Your task to perform on an android device: turn on bluetooth scan Image 0: 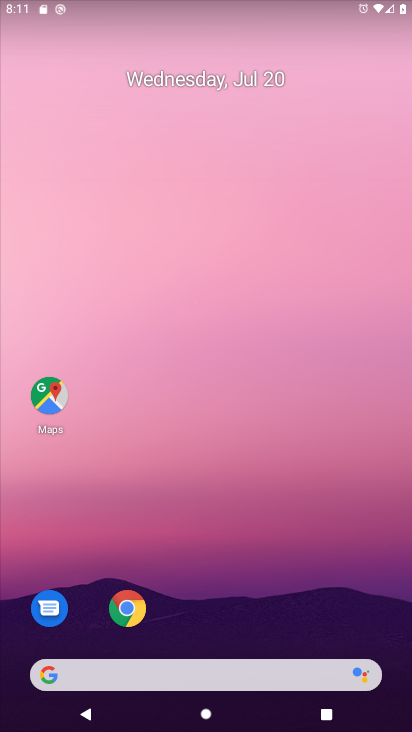
Step 0: drag from (166, 678) to (185, 243)
Your task to perform on an android device: turn on bluetooth scan Image 1: 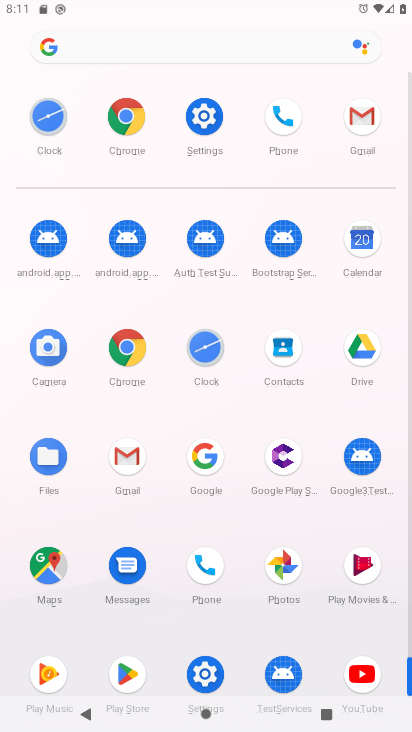
Step 1: click (208, 109)
Your task to perform on an android device: turn on bluetooth scan Image 2: 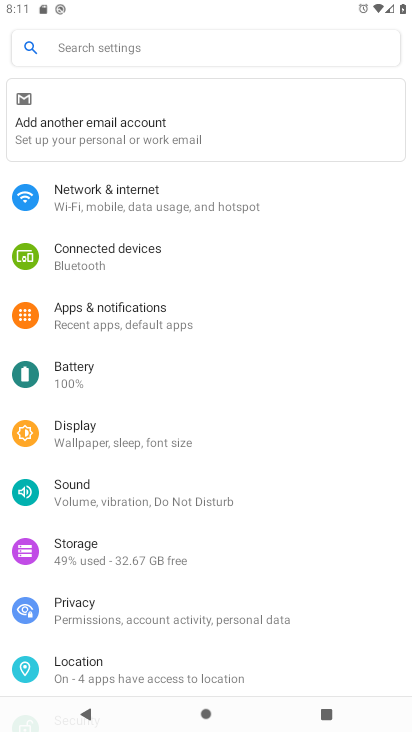
Step 2: click (185, 34)
Your task to perform on an android device: turn on bluetooth scan Image 3: 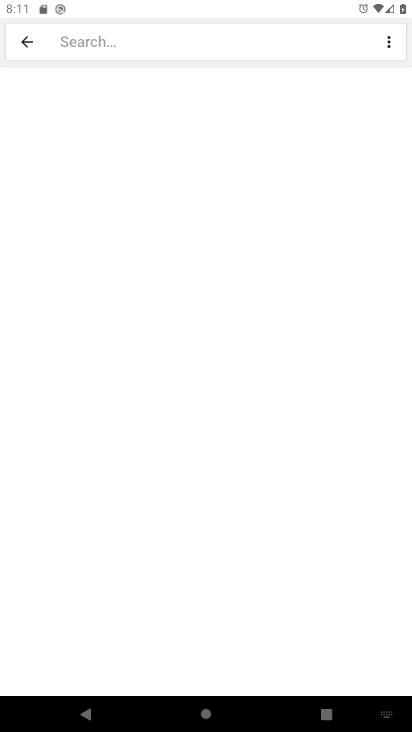
Step 3: type "bluetooth "
Your task to perform on an android device: turn on bluetooth scan Image 4: 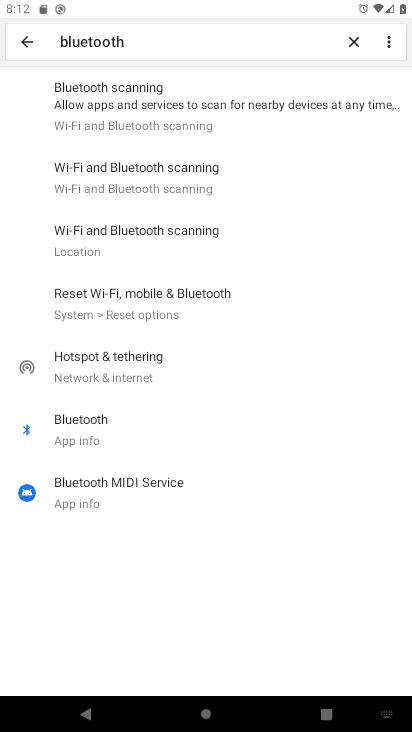
Step 4: click (131, 87)
Your task to perform on an android device: turn on bluetooth scan Image 5: 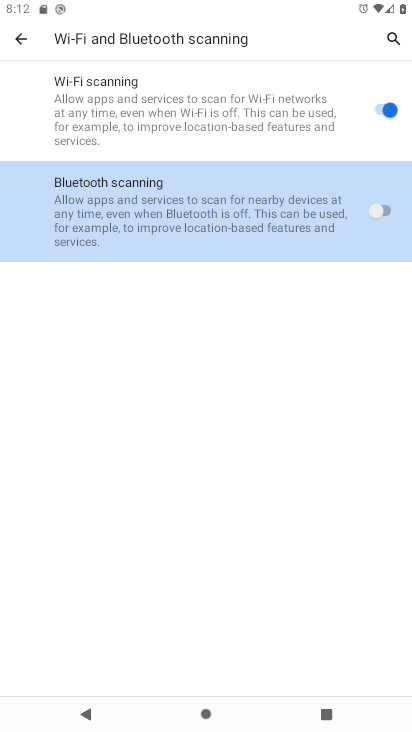
Step 5: click (388, 208)
Your task to perform on an android device: turn on bluetooth scan Image 6: 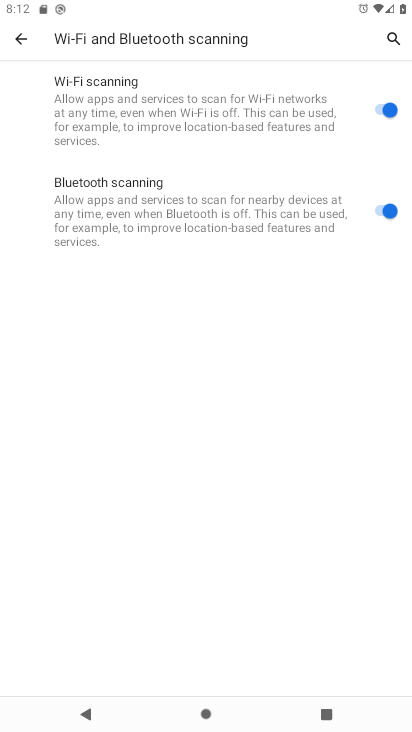
Step 6: task complete